Your task to perform on an android device: turn on data saver in the chrome app Image 0: 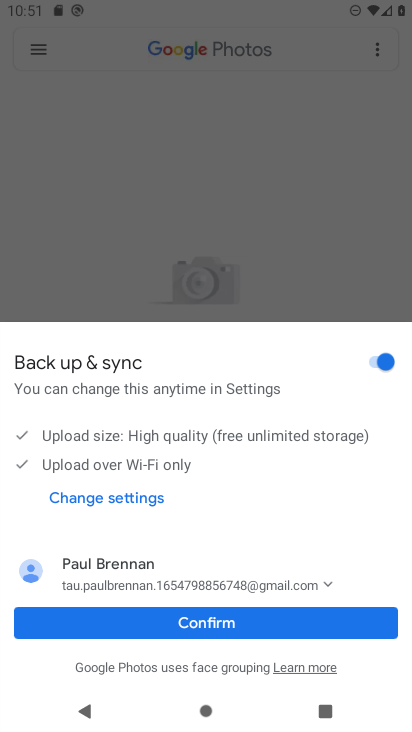
Step 0: press home button
Your task to perform on an android device: turn on data saver in the chrome app Image 1: 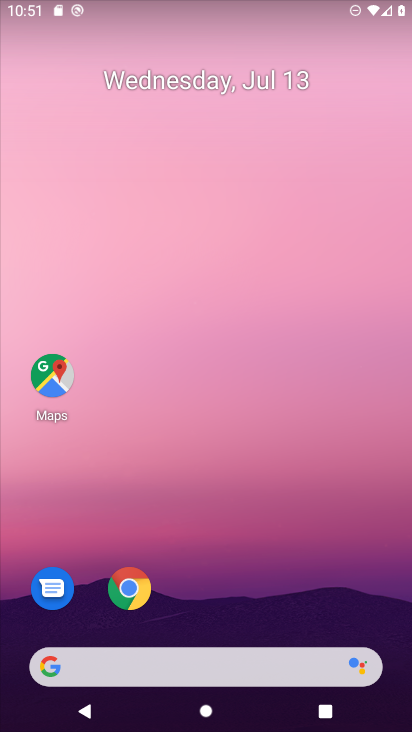
Step 1: drag from (202, 594) to (240, 14)
Your task to perform on an android device: turn on data saver in the chrome app Image 2: 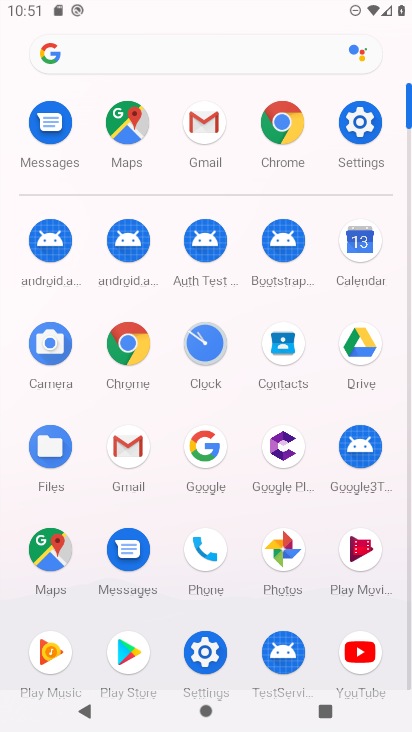
Step 2: click (128, 353)
Your task to perform on an android device: turn on data saver in the chrome app Image 3: 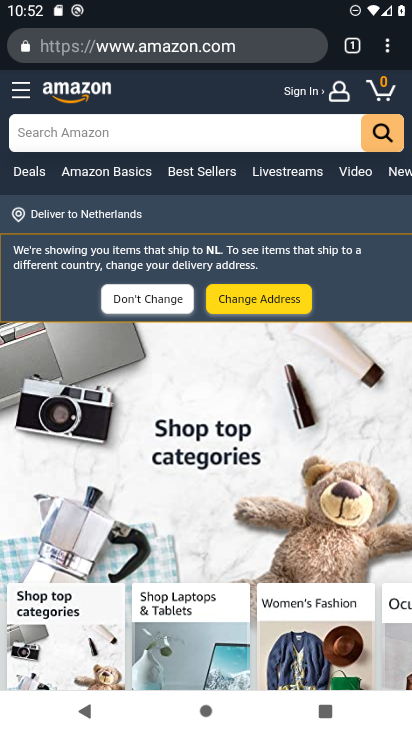
Step 3: click (385, 50)
Your task to perform on an android device: turn on data saver in the chrome app Image 4: 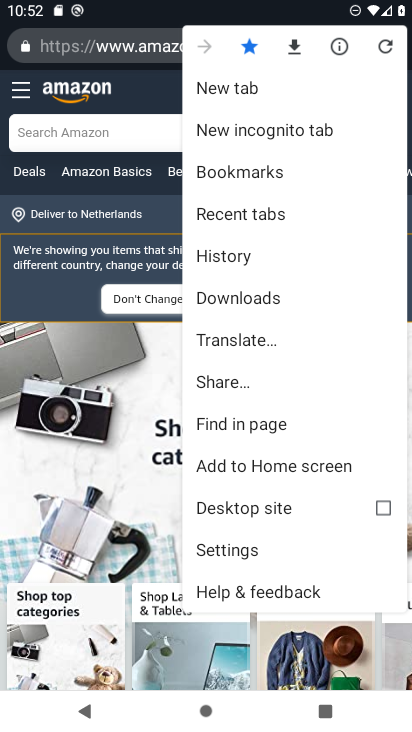
Step 4: click (236, 552)
Your task to perform on an android device: turn on data saver in the chrome app Image 5: 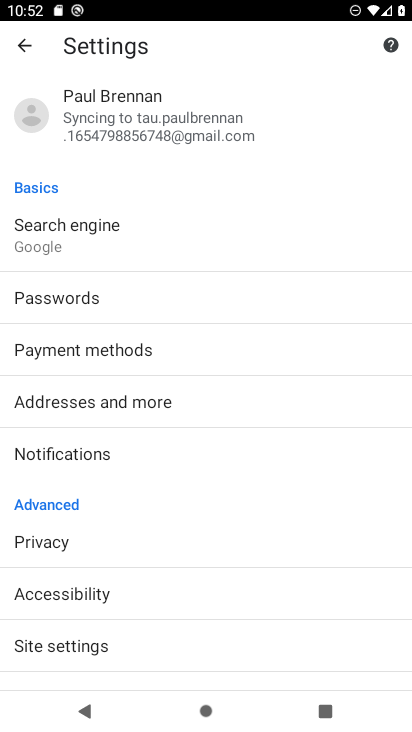
Step 5: drag from (101, 474) to (119, 366)
Your task to perform on an android device: turn on data saver in the chrome app Image 6: 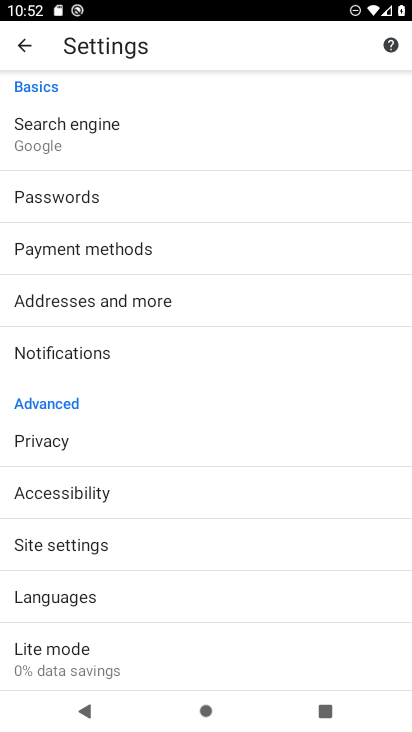
Step 6: click (63, 661)
Your task to perform on an android device: turn on data saver in the chrome app Image 7: 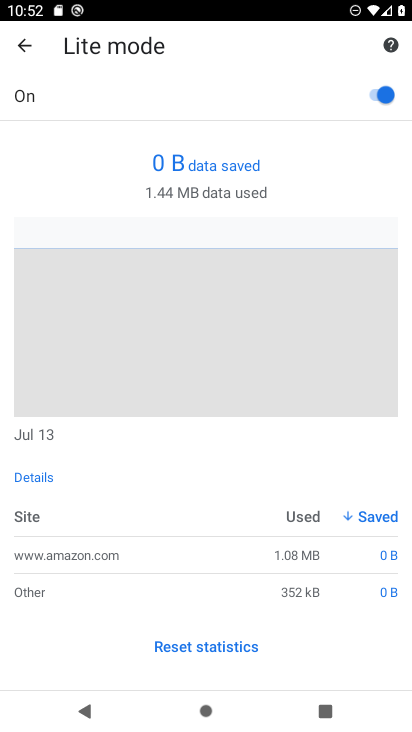
Step 7: task complete